Your task to perform on an android device: Go to location settings Image 0: 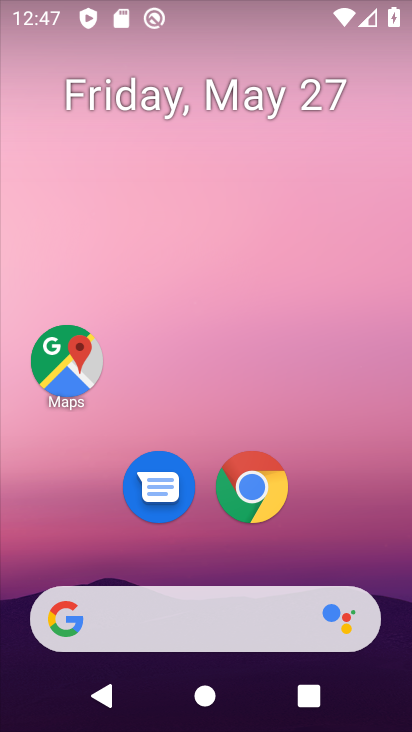
Step 0: drag from (166, 724) to (152, 26)
Your task to perform on an android device: Go to location settings Image 1: 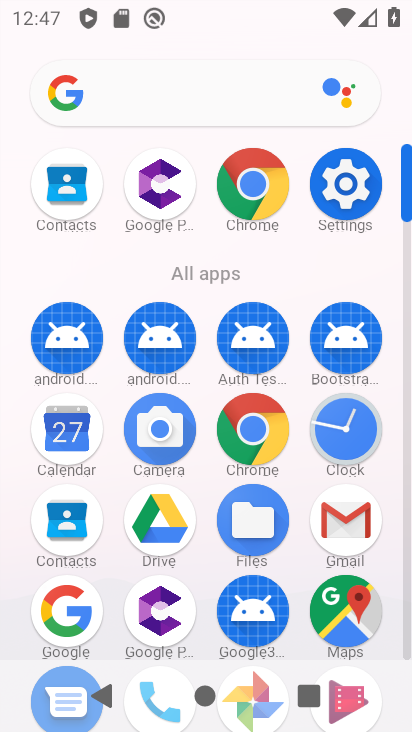
Step 1: click (353, 192)
Your task to perform on an android device: Go to location settings Image 2: 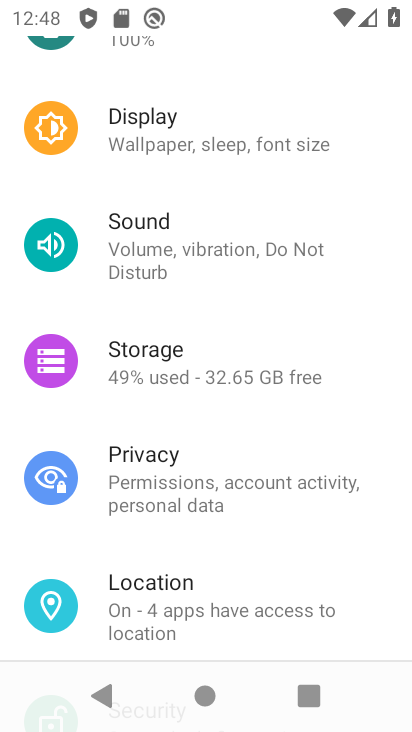
Step 2: click (134, 617)
Your task to perform on an android device: Go to location settings Image 3: 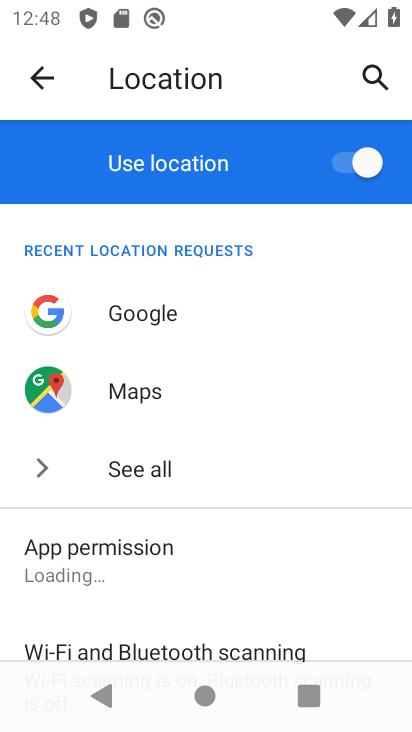
Step 3: task complete